Your task to perform on an android device: Search for Italian restaurants on Maps Image 0: 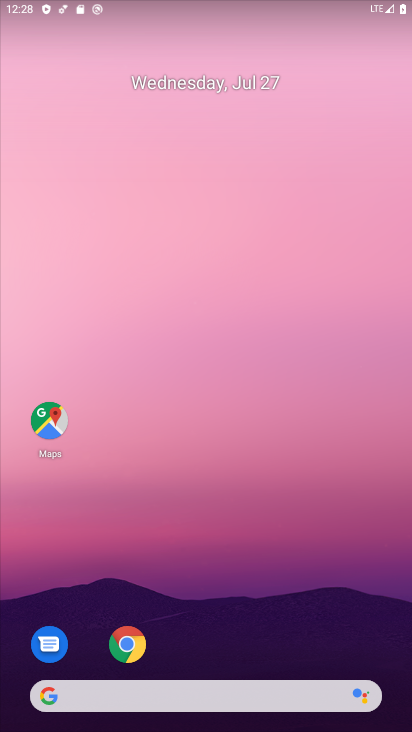
Step 0: drag from (217, 644) to (280, 27)
Your task to perform on an android device: Search for Italian restaurants on Maps Image 1: 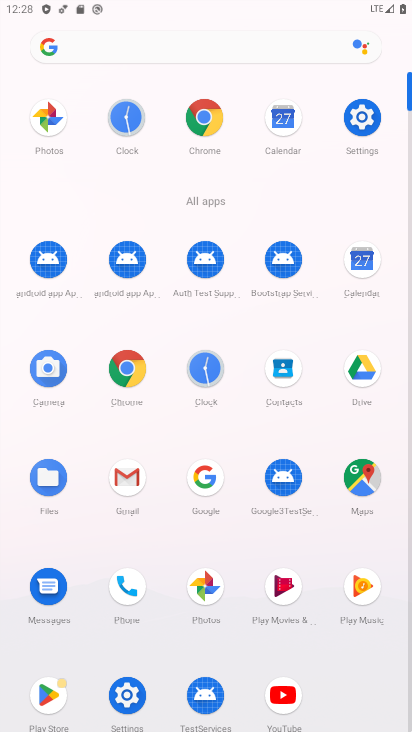
Step 1: click (361, 484)
Your task to perform on an android device: Search for Italian restaurants on Maps Image 2: 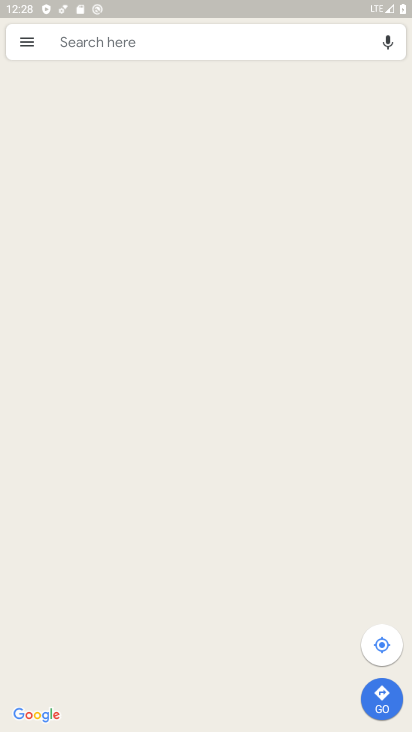
Step 2: click (149, 36)
Your task to perform on an android device: Search for Italian restaurants on Maps Image 3: 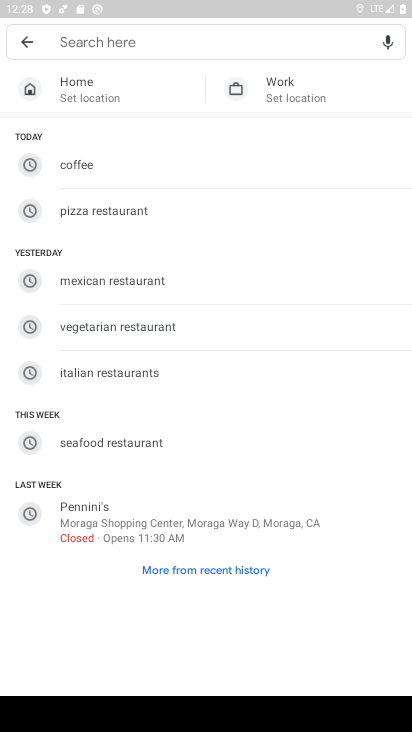
Step 3: type "italian restaurants"
Your task to perform on an android device: Search for Italian restaurants on Maps Image 4: 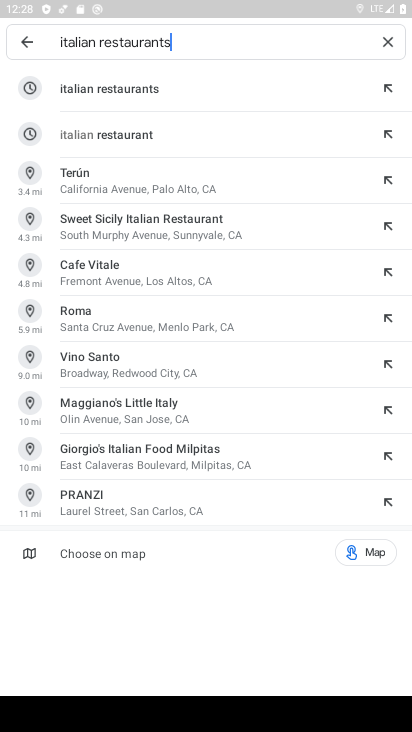
Step 4: click (132, 90)
Your task to perform on an android device: Search for Italian restaurants on Maps Image 5: 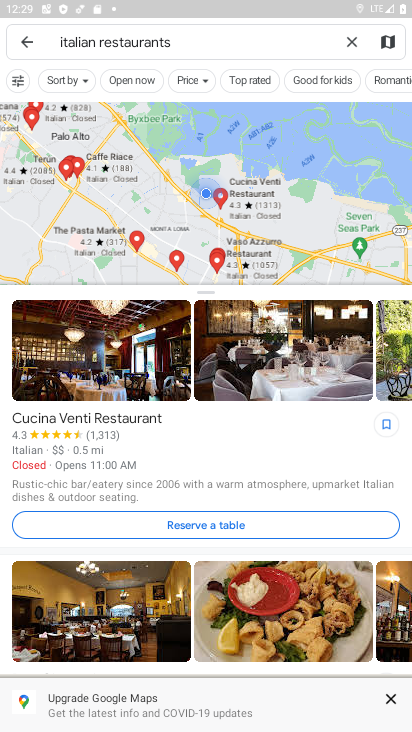
Step 5: task complete